Your task to perform on an android device: turn on javascript in the chrome app Image 0: 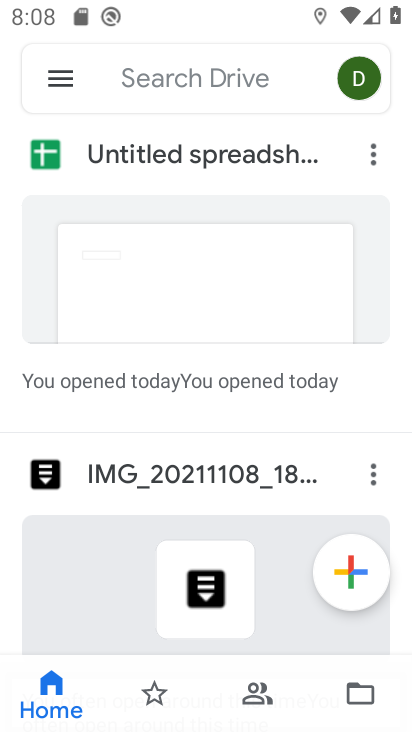
Step 0: press home button
Your task to perform on an android device: turn on javascript in the chrome app Image 1: 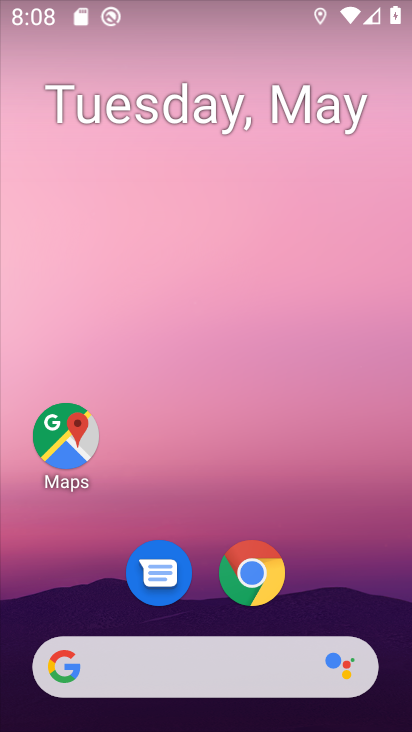
Step 1: click (268, 561)
Your task to perform on an android device: turn on javascript in the chrome app Image 2: 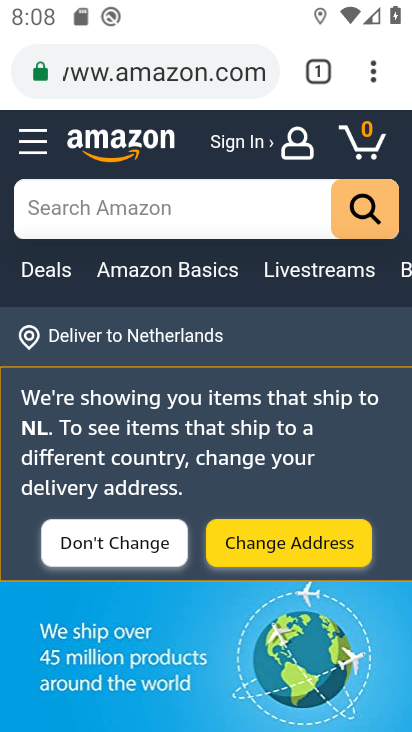
Step 2: click (369, 64)
Your task to perform on an android device: turn on javascript in the chrome app Image 3: 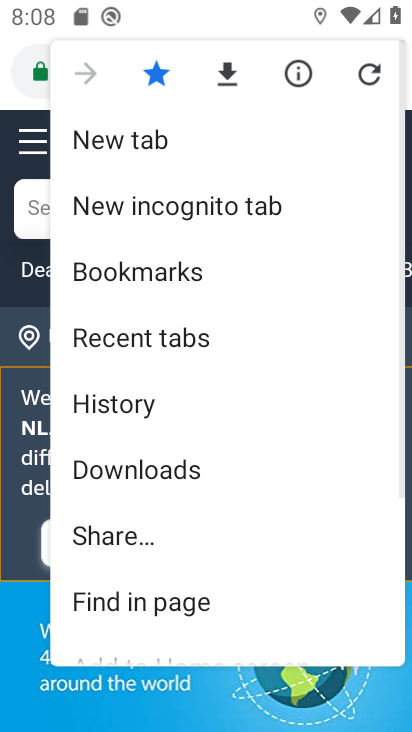
Step 3: click (268, 255)
Your task to perform on an android device: turn on javascript in the chrome app Image 4: 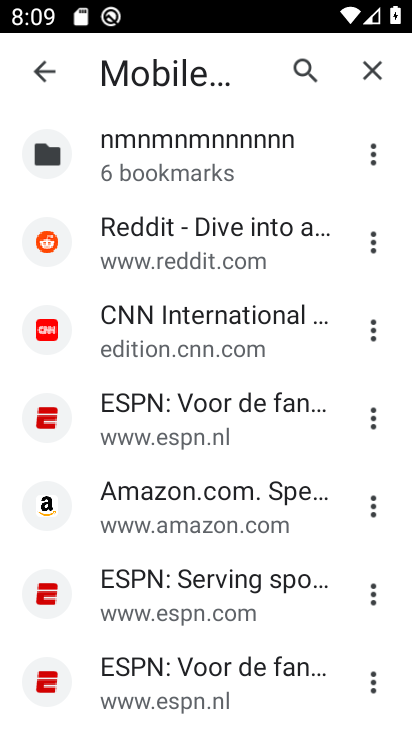
Step 4: click (44, 63)
Your task to perform on an android device: turn on javascript in the chrome app Image 5: 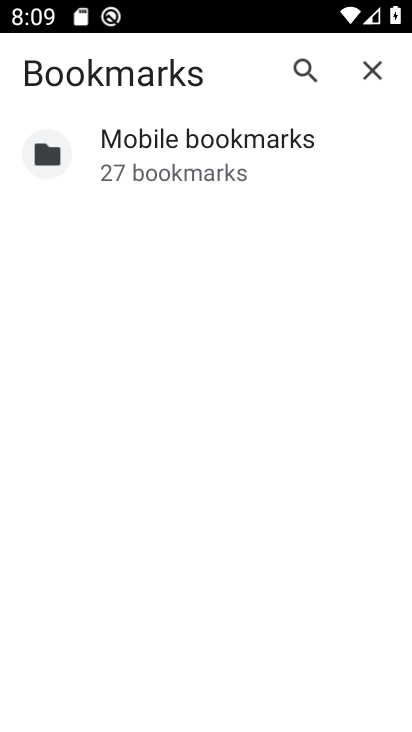
Step 5: press back button
Your task to perform on an android device: turn on javascript in the chrome app Image 6: 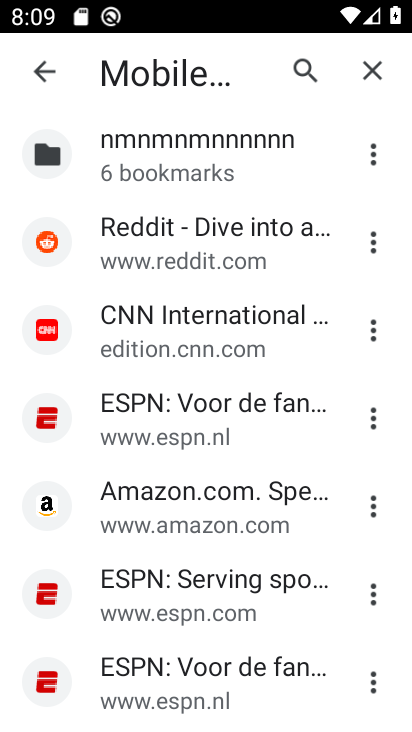
Step 6: click (34, 72)
Your task to perform on an android device: turn on javascript in the chrome app Image 7: 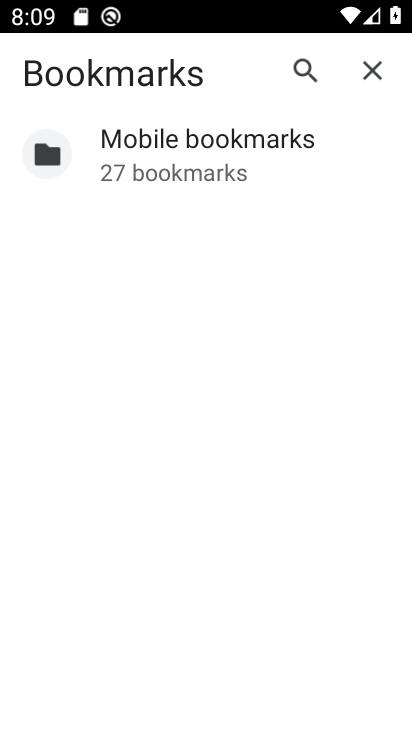
Step 7: click (34, 72)
Your task to perform on an android device: turn on javascript in the chrome app Image 8: 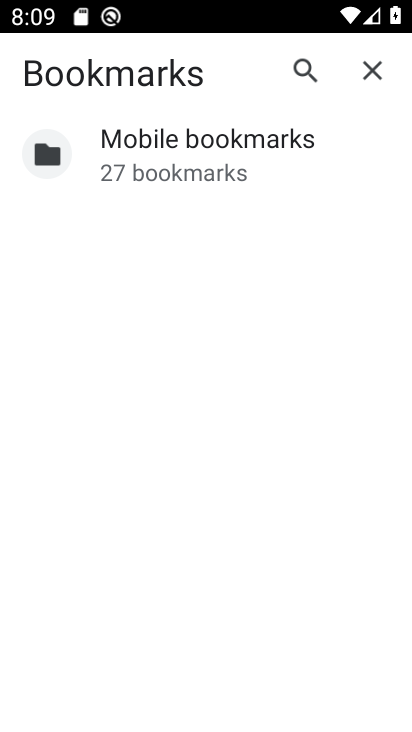
Step 8: click (367, 66)
Your task to perform on an android device: turn on javascript in the chrome app Image 9: 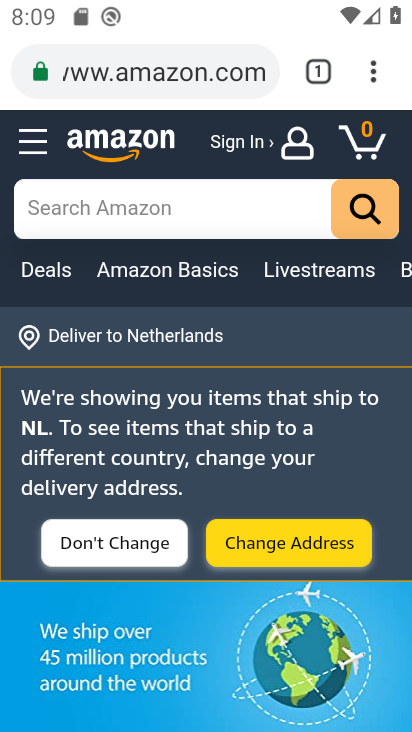
Step 9: click (371, 64)
Your task to perform on an android device: turn on javascript in the chrome app Image 10: 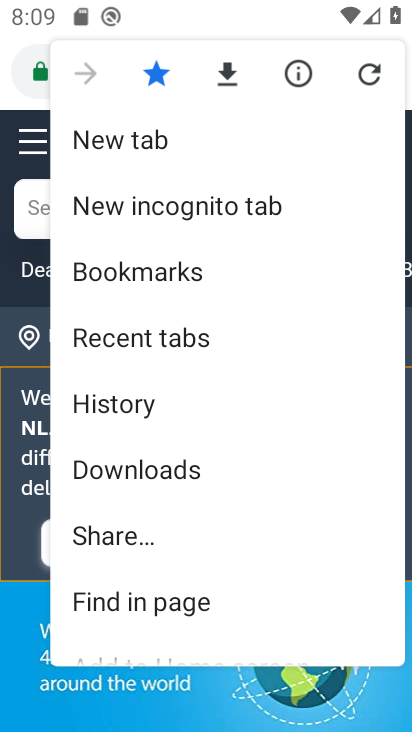
Step 10: drag from (253, 612) to (323, 179)
Your task to perform on an android device: turn on javascript in the chrome app Image 11: 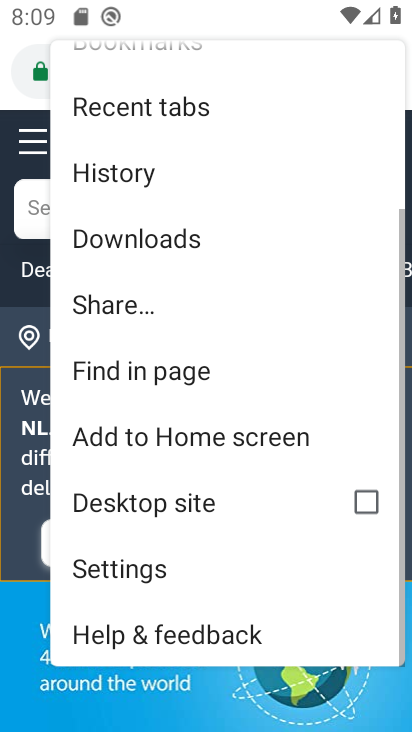
Step 11: click (112, 568)
Your task to perform on an android device: turn on javascript in the chrome app Image 12: 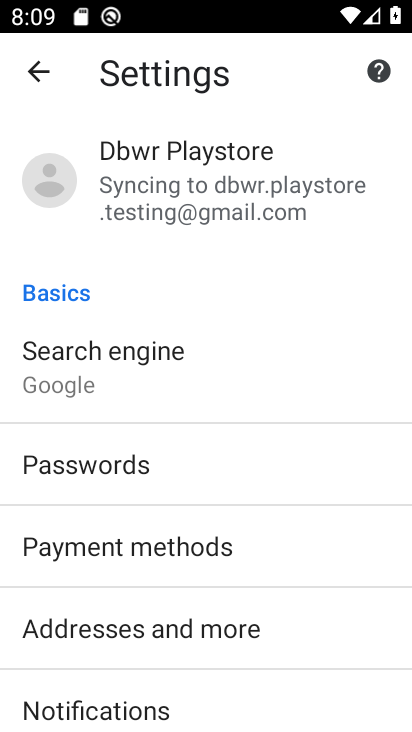
Step 12: drag from (284, 703) to (252, 427)
Your task to perform on an android device: turn on javascript in the chrome app Image 13: 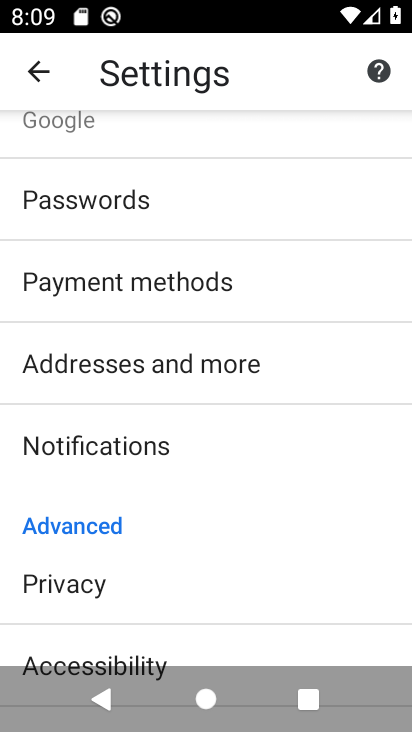
Step 13: drag from (353, 618) to (333, 260)
Your task to perform on an android device: turn on javascript in the chrome app Image 14: 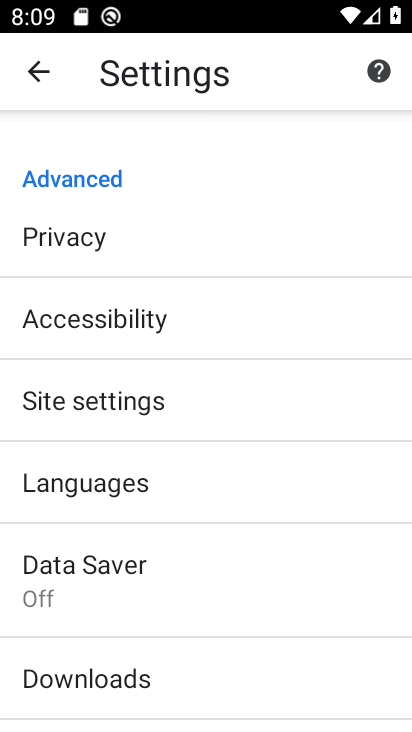
Step 14: click (95, 397)
Your task to perform on an android device: turn on javascript in the chrome app Image 15: 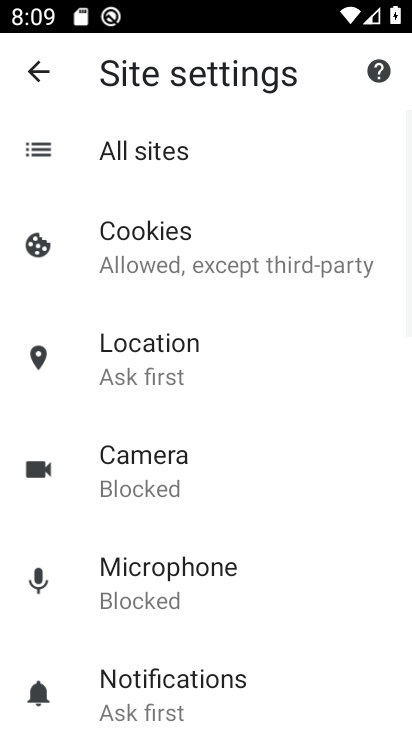
Step 15: drag from (309, 703) to (345, 345)
Your task to perform on an android device: turn on javascript in the chrome app Image 16: 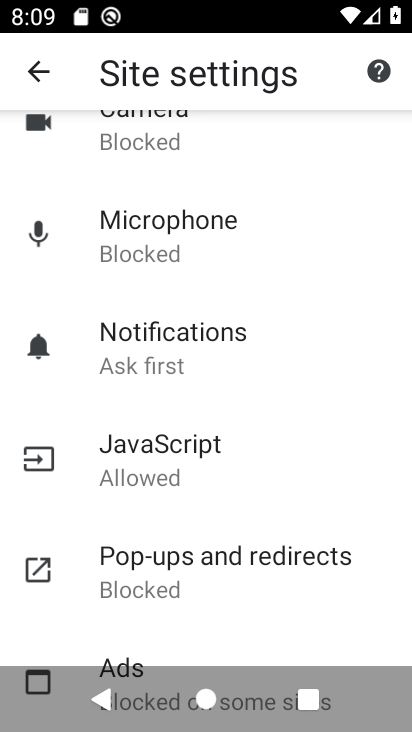
Step 16: click (185, 573)
Your task to perform on an android device: turn on javascript in the chrome app Image 17: 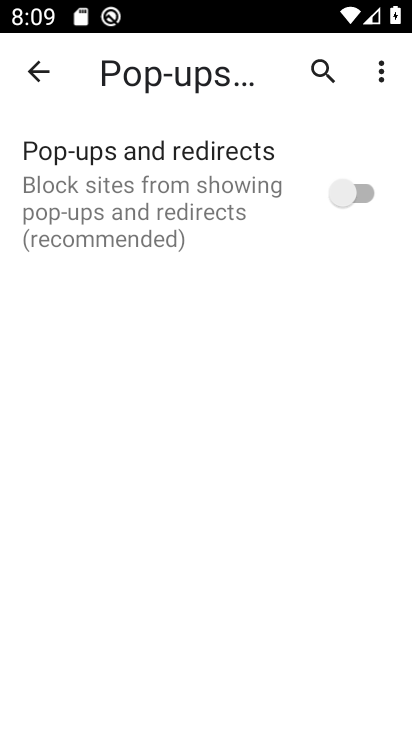
Step 17: click (113, 458)
Your task to perform on an android device: turn on javascript in the chrome app Image 18: 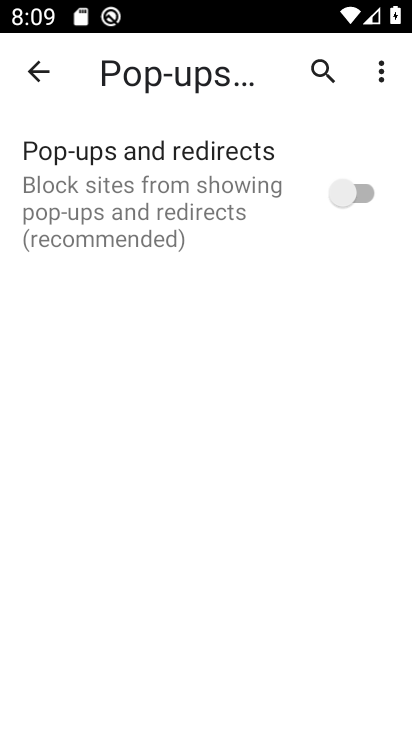
Step 18: click (30, 67)
Your task to perform on an android device: turn on javascript in the chrome app Image 19: 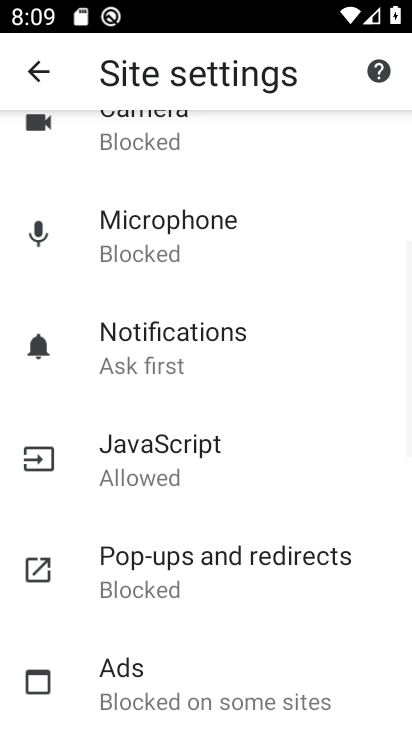
Step 19: click (139, 446)
Your task to perform on an android device: turn on javascript in the chrome app Image 20: 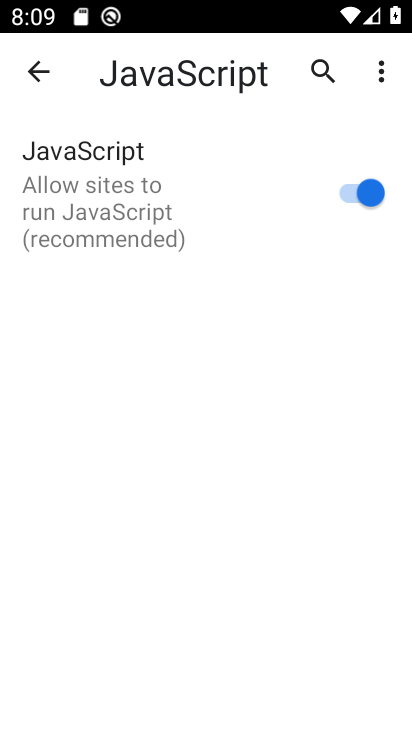
Step 20: task complete